Your task to perform on an android device: What is the news today? Image 0: 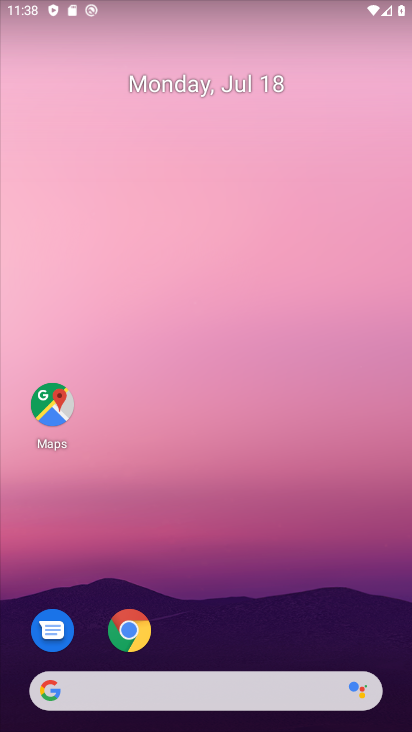
Step 0: click (222, 693)
Your task to perform on an android device: What is the news today? Image 1: 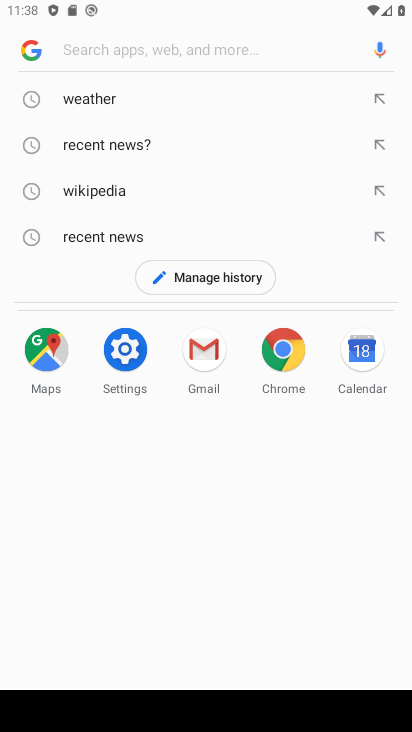
Step 1: type "news today "
Your task to perform on an android device: What is the news today? Image 2: 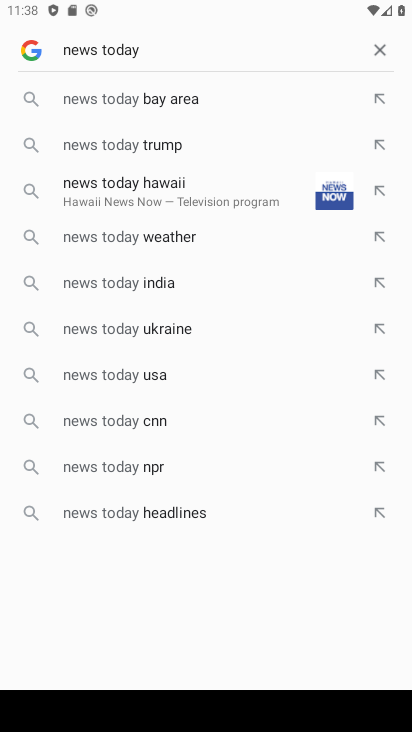
Step 2: type "/"
Your task to perform on an android device: What is the news today? Image 3: 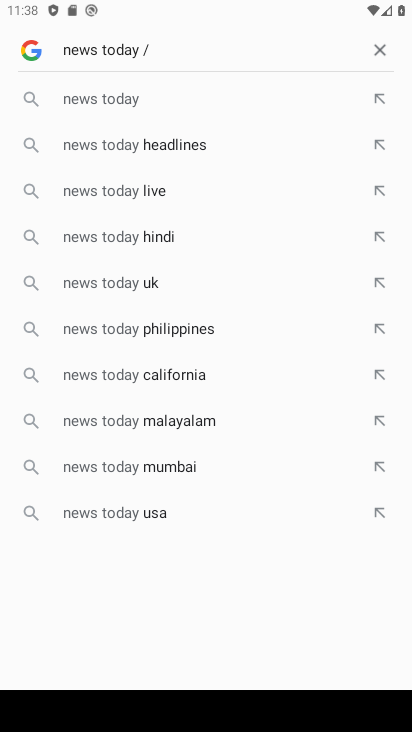
Step 3: click (139, 108)
Your task to perform on an android device: What is the news today? Image 4: 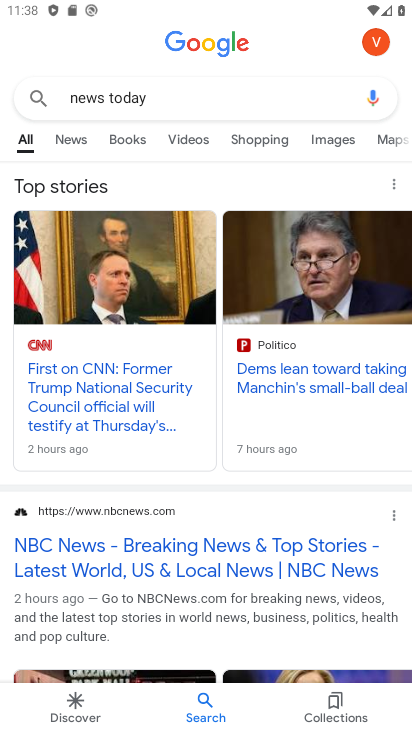
Step 4: task complete